Your task to perform on an android device: Search for Mexican restaurants on Maps Image 0: 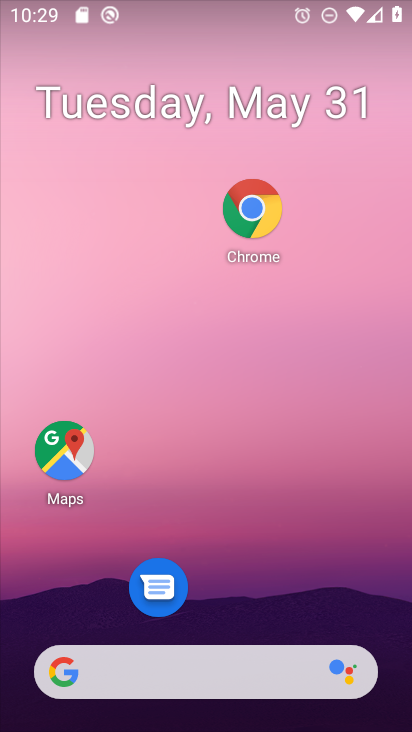
Step 0: press home button
Your task to perform on an android device: Search for Mexican restaurants on Maps Image 1: 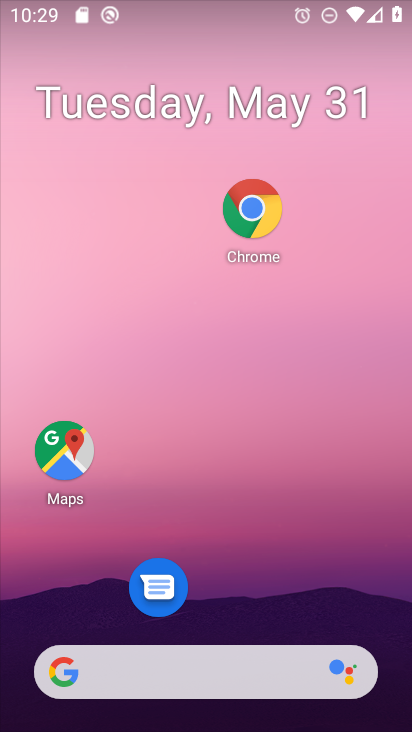
Step 1: click (61, 443)
Your task to perform on an android device: Search for Mexican restaurants on Maps Image 2: 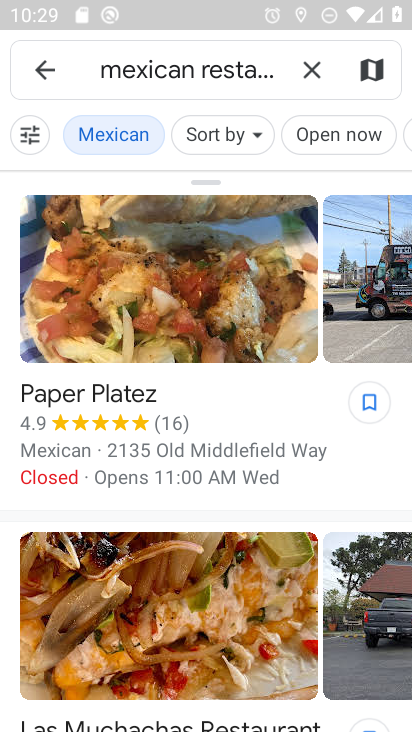
Step 2: task complete